Your task to perform on an android device: set an alarm Image 0: 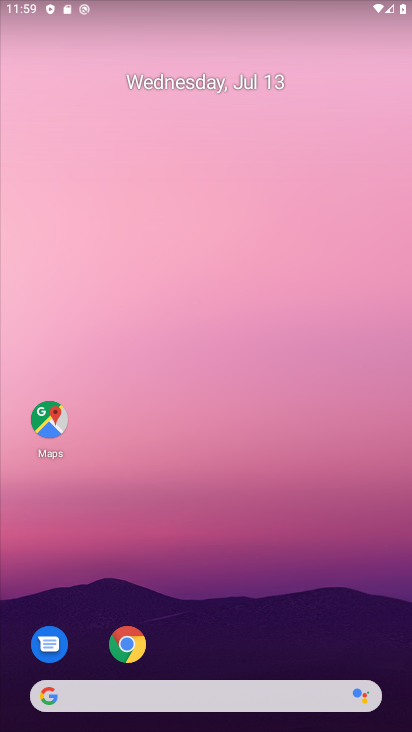
Step 0: drag from (200, 652) to (153, 106)
Your task to perform on an android device: set an alarm Image 1: 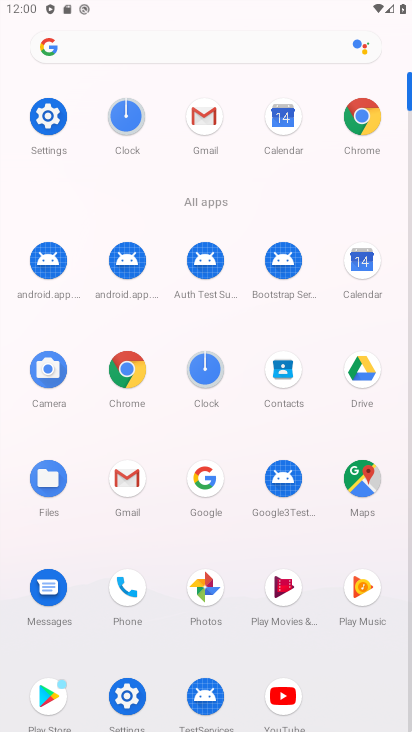
Step 1: click (222, 370)
Your task to perform on an android device: set an alarm Image 2: 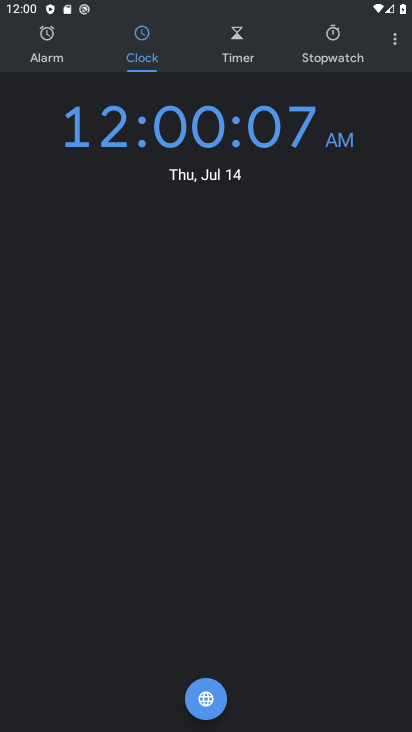
Step 2: click (51, 39)
Your task to perform on an android device: set an alarm Image 3: 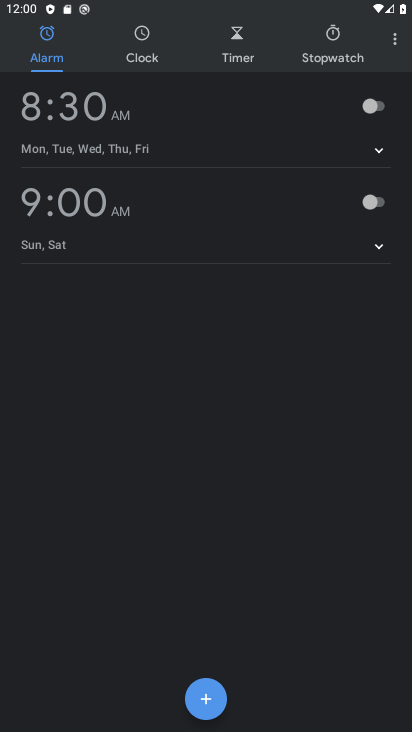
Step 3: click (199, 686)
Your task to perform on an android device: set an alarm Image 4: 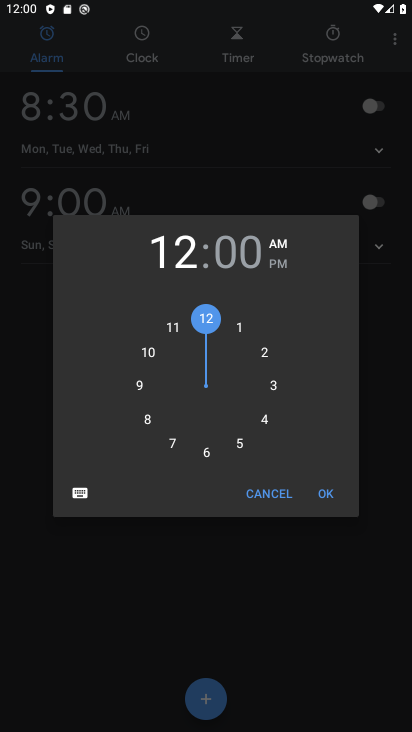
Step 4: click (321, 512)
Your task to perform on an android device: set an alarm Image 5: 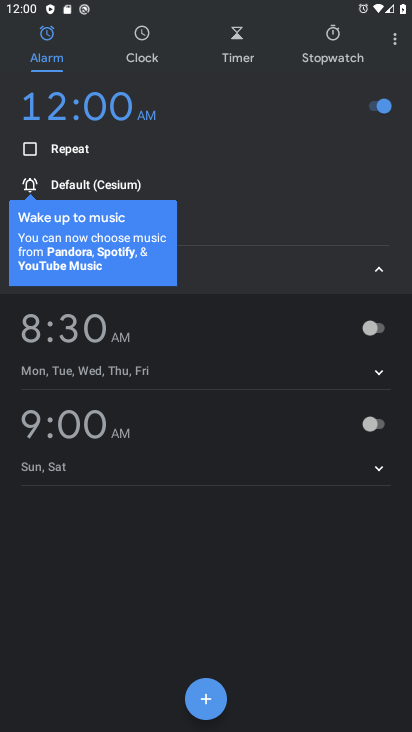
Step 5: task complete